Your task to perform on an android device: toggle improve location accuracy Image 0: 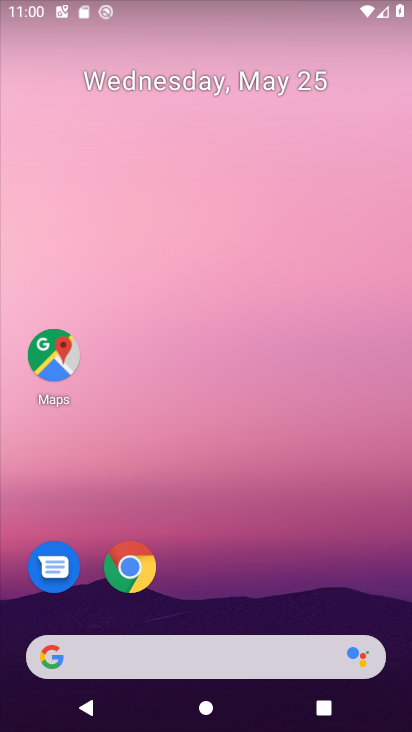
Step 0: drag from (293, 602) to (271, 123)
Your task to perform on an android device: toggle improve location accuracy Image 1: 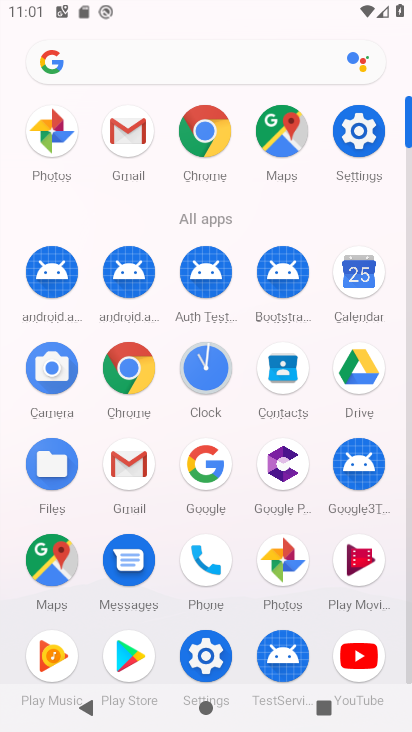
Step 1: click (365, 141)
Your task to perform on an android device: toggle improve location accuracy Image 2: 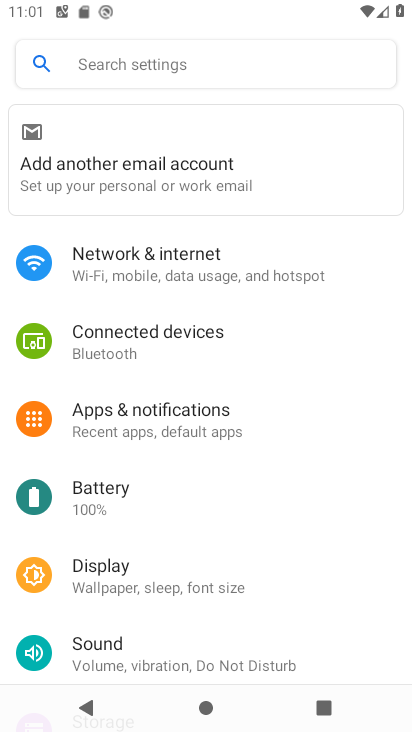
Step 2: drag from (154, 606) to (177, 172)
Your task to perform on an android device: toggle improve location accuracy Image 3: 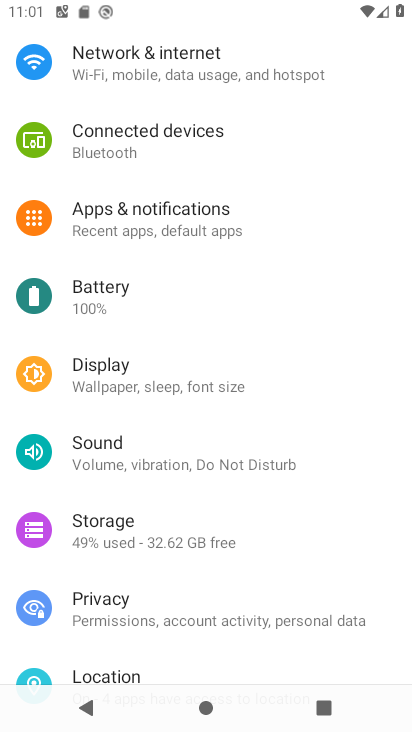
Step 3: drag from (209, 580) to (272, 252)
Your task to perform on an android device: toggle improve location accuracy Image 4: 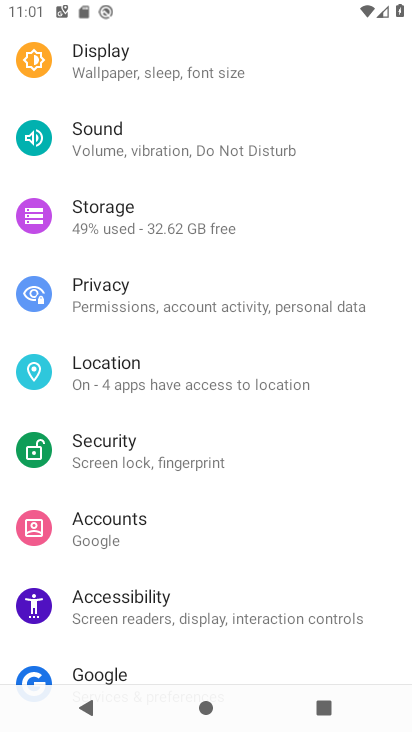
Step 4: click (166, 367)
Your task to perform on an android device: toggle improve location accuracy Image 5: 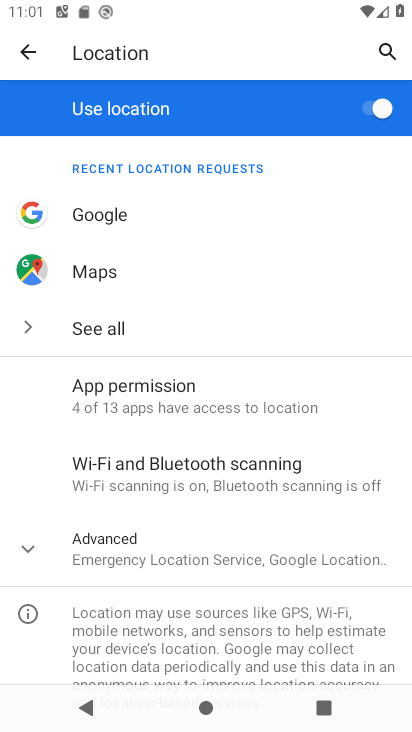
Step 5: click (207, 552)
Your task to perform on an android device: toggle improve location accuracy Image 6: 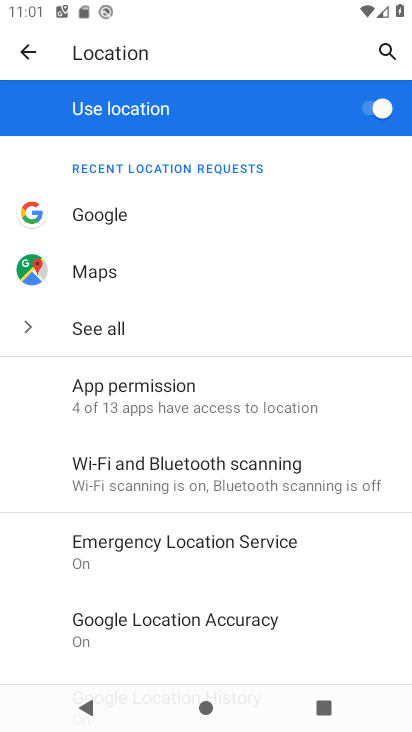
Step 6: click (230, 615)
Your task to perform on an android device: toggle improve location accuracy Image 7: 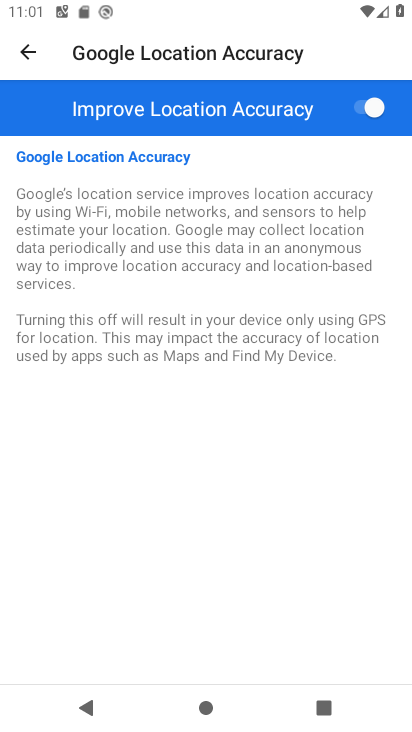
Step 7: click (367, 112)
Your task to perform on an android device: toggle improve location accuracy Image 8: 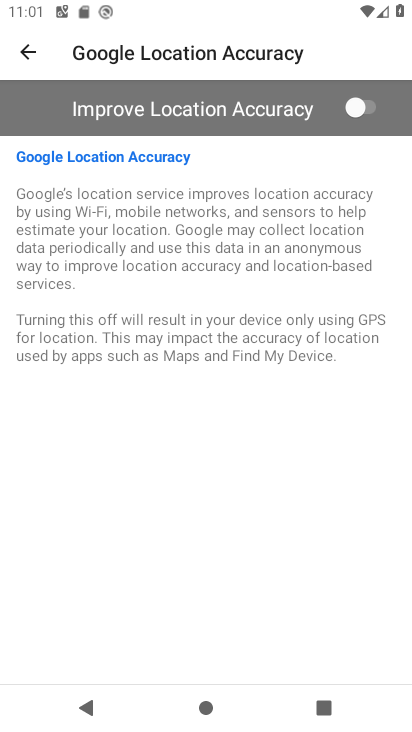
Step 8: task complete